Your task to perform on an android device: Go to privacy settings Image 0: 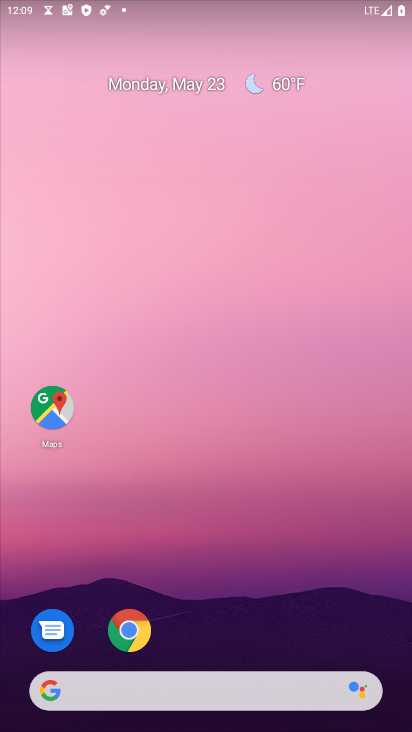
Step 0: drag from (237, 601) to (169, 133)
Your task to perform on an android device: Go to privacy settings Image 1: 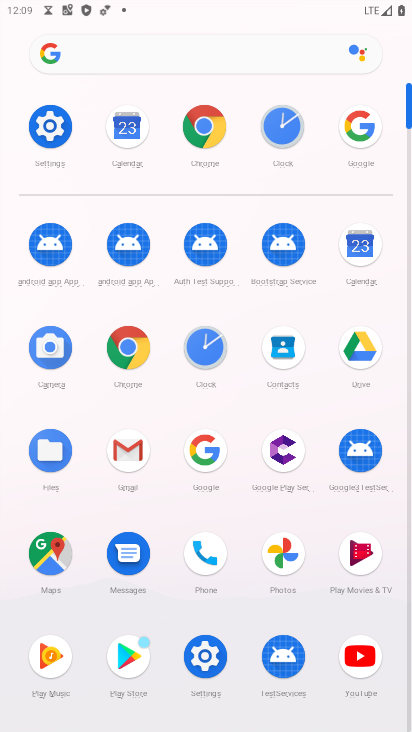
Step 1: click (52, 125)
Your task to perform on an android device: Go to privacy settings Image 2: 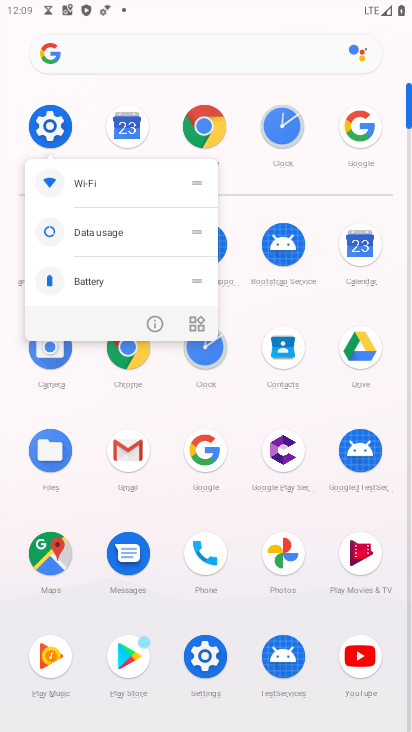
Step 2: click (51, 125)
Your task to perform on an android device: Go to privacy settings Image 3: 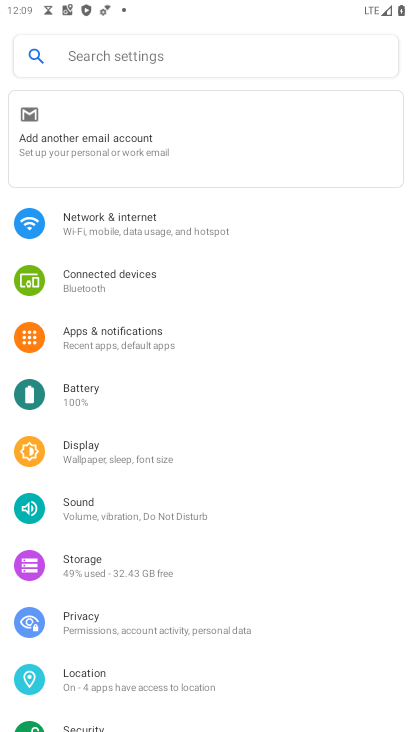
Step 3: drag from (123, 391) to (153, 297)
Your task to perform on an android device: Go to privacy settings Image 4: 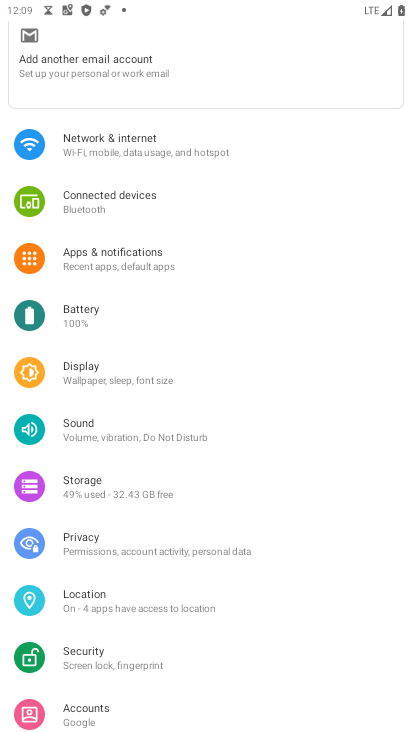
Step 4: drag from (122, 395) to (159, 304)
Your task to perform on an android device: Go to privacy settings Image 5: 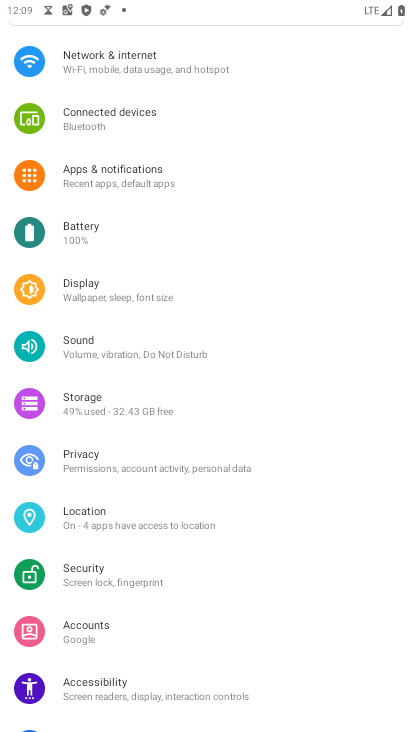
Step 5: click (120, 469)
Your task to perform on an android device: Go to privacy settings Image 6: 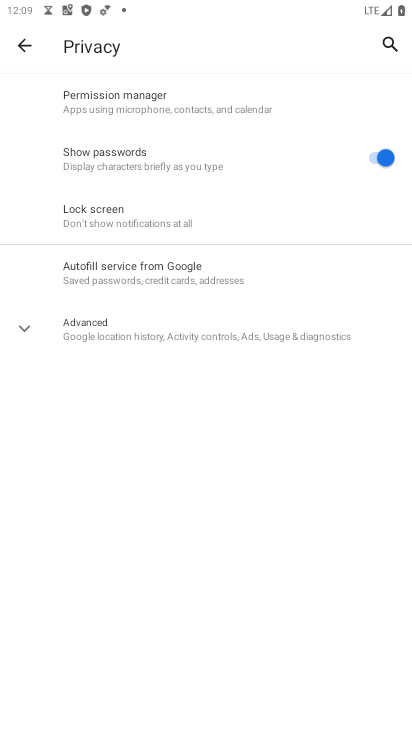
Step 6: task complete